Your task to perform on an android device: Empty the shopping cart on bestbuy. Add razer blade to the cart on bestbuy Image 0: 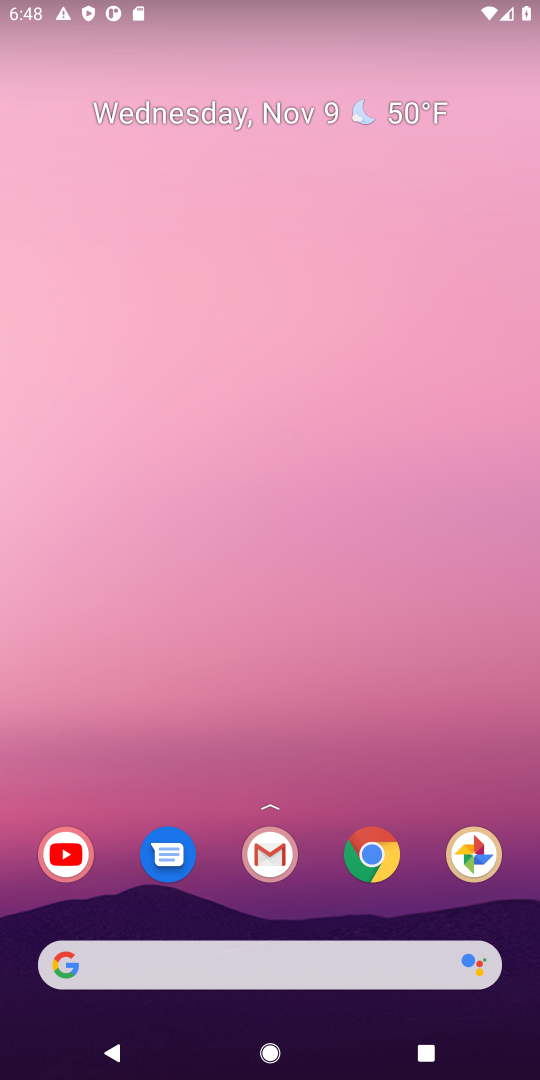
Step 0: press home button
Your task to perform on an android device: Empty the shopping cart on bestbuy. Add razer blade to the cart on bestbuy Image 1: 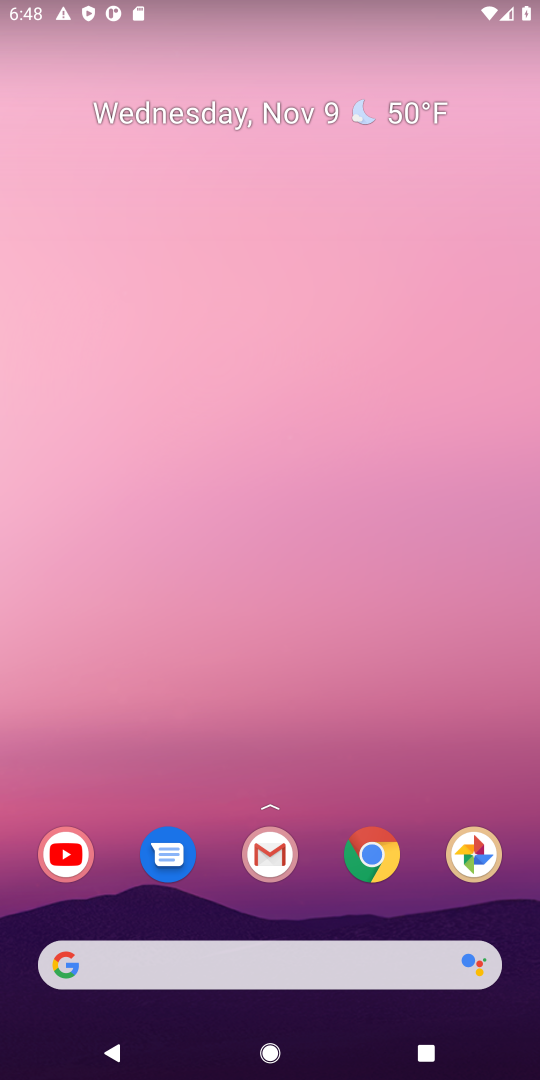
Step 1: click (264, 976)
Your task to perform on an android device: Empty the shopping cart on bestbuy. Add razer blade to the cart on bestbuy Image 2: 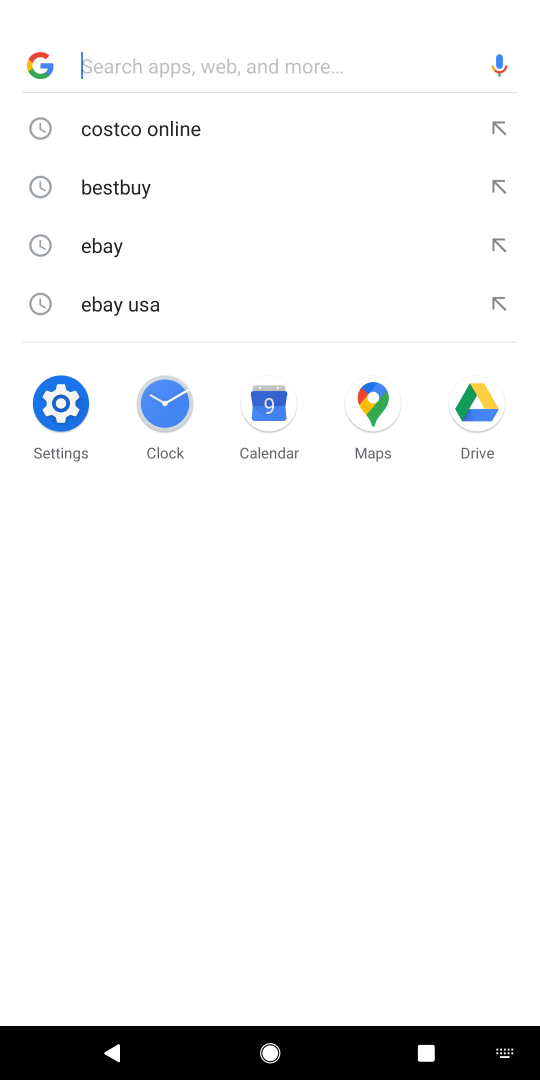
Step 2: task complete